Your task to perform on an android device: Search for beats solo 3 on walmart.com, select the first entry, and add it to the cart. Image 0: 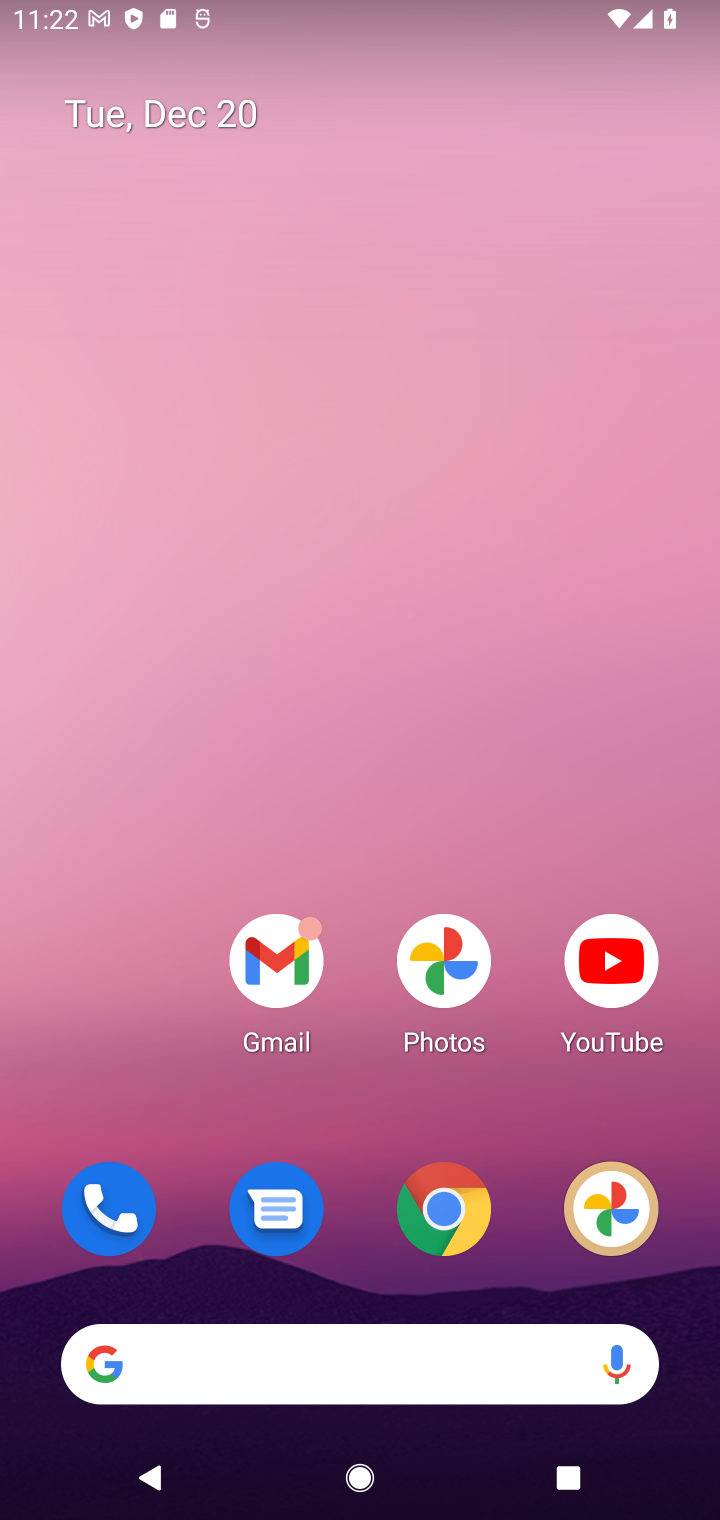
Step 0: click (451, 1210)
Your task to perform on an android device: Search for beats solo 3 on walmart.com, select the first entry, and add it to the cart. Image 1: 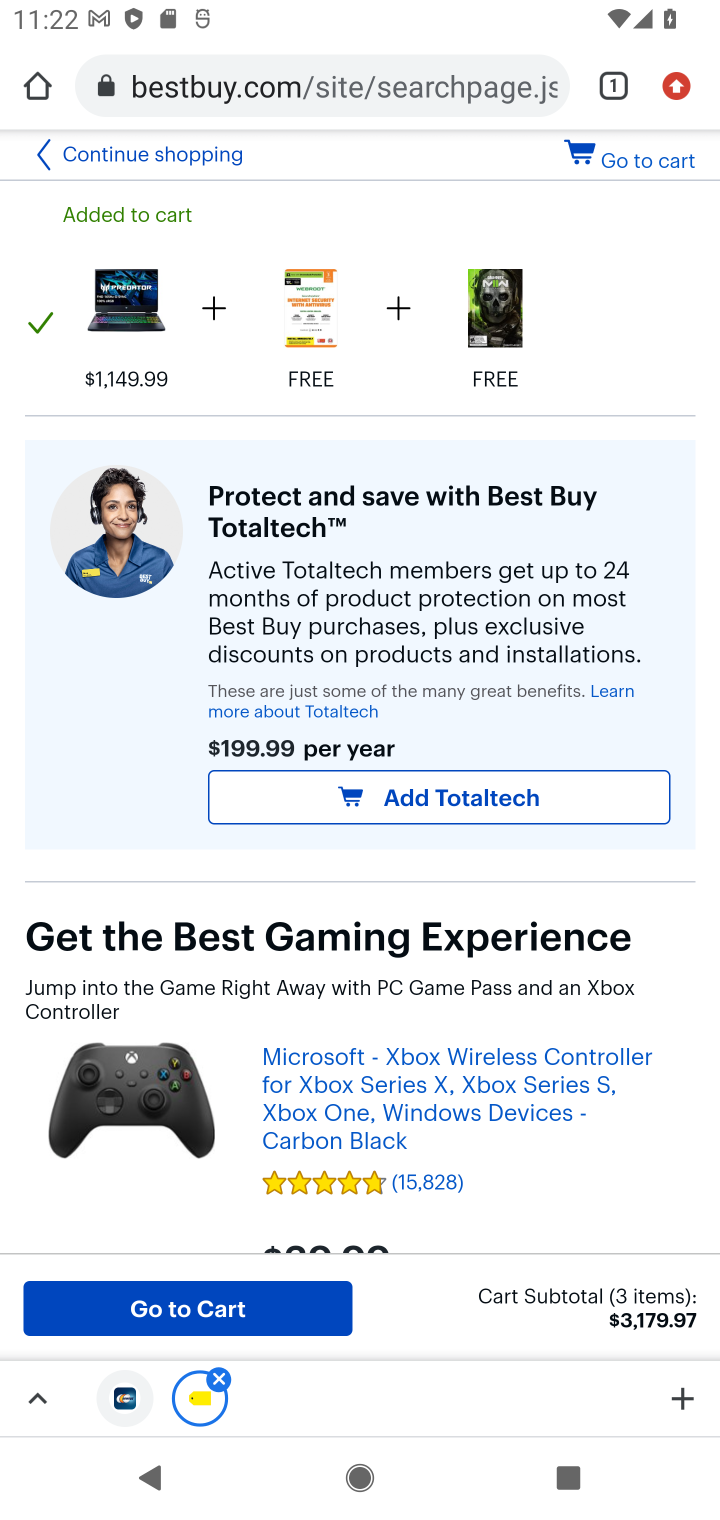
Step 1: click (235, 84)
Your task to perform on an android device: Search for beats solo 3 on walmart.com, select the first entry, and add it to the cart. Image 2: 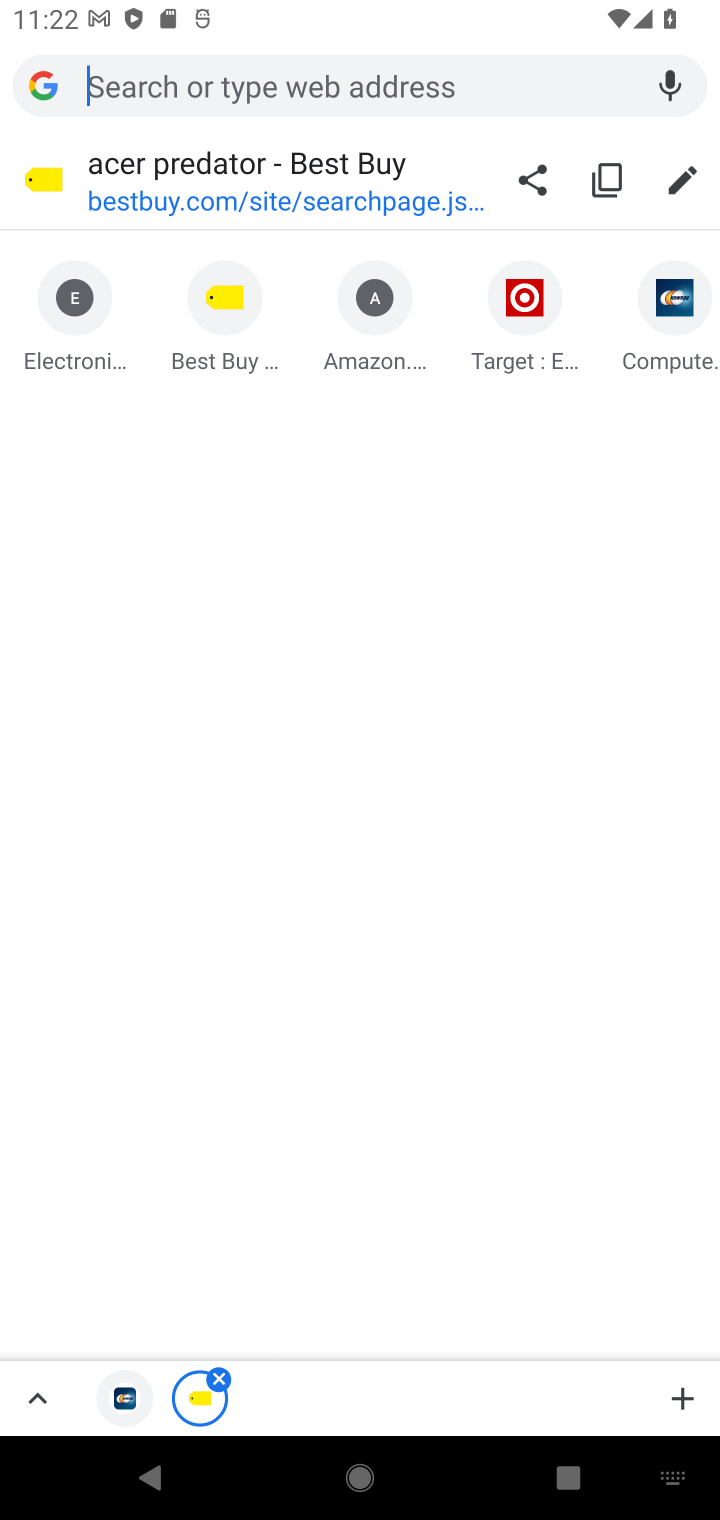
Step 2: type "walmart.com"
Your task to perform on an android device: Search for beats solo 3 on walmart.com, select the first entry, and add it to the cart. Image 3: 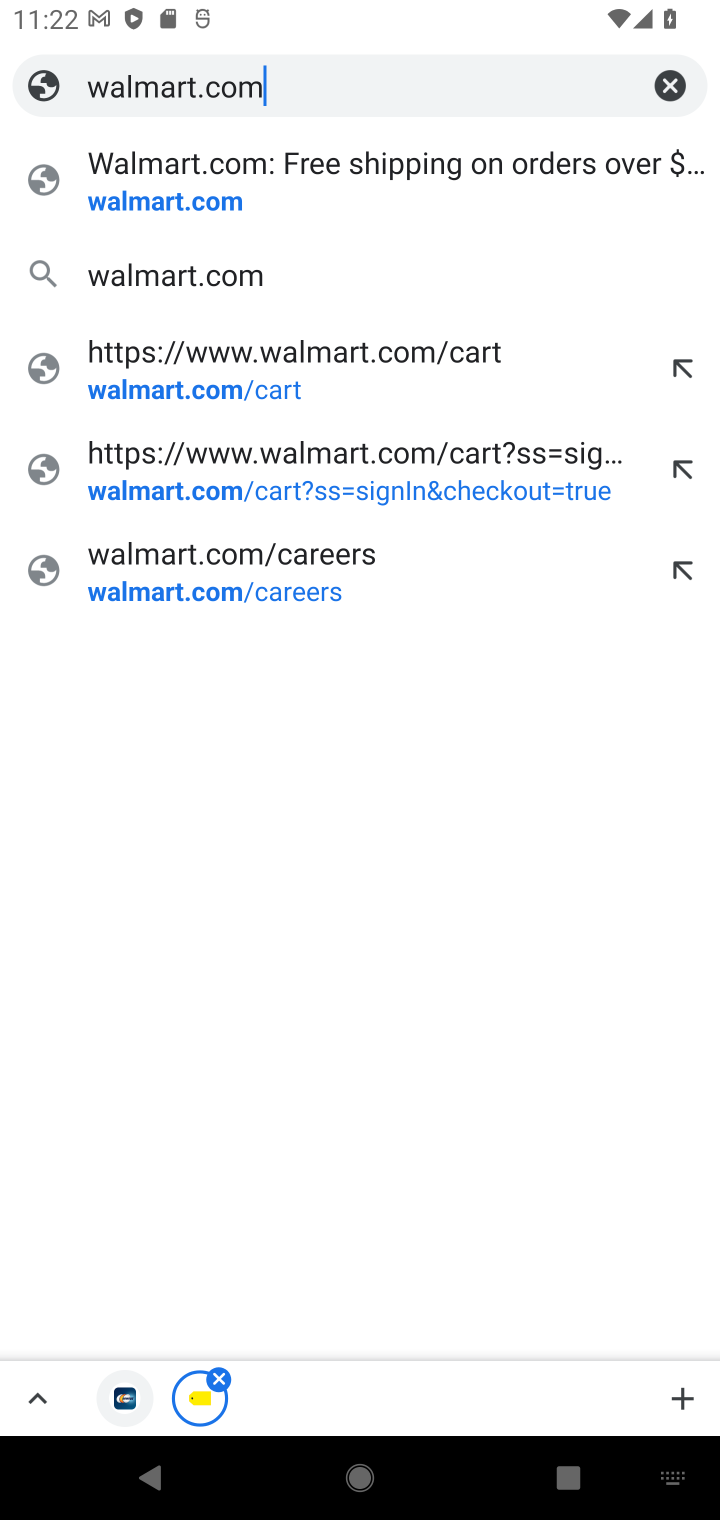
Step 3: click (165, 202)
Your task to perform on an android device: Search for beats solo 3 on walmart.com, select the first entry, and add it to the cart. Image 4: 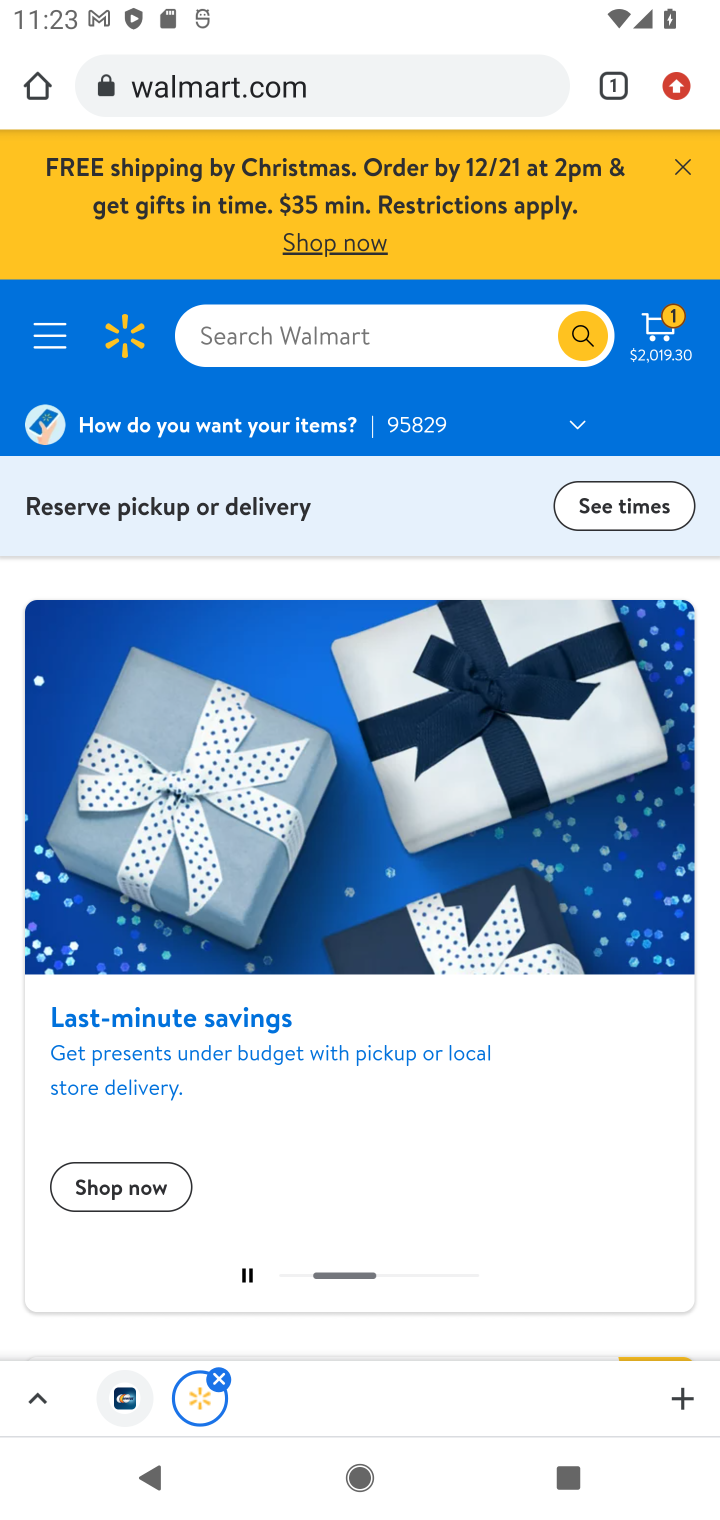
Step 4: click (246, 334)
Your task to perform on an android device: Search for beats solo 3 on walmart.com, select the first entry, and add it to the cart. Image 5: 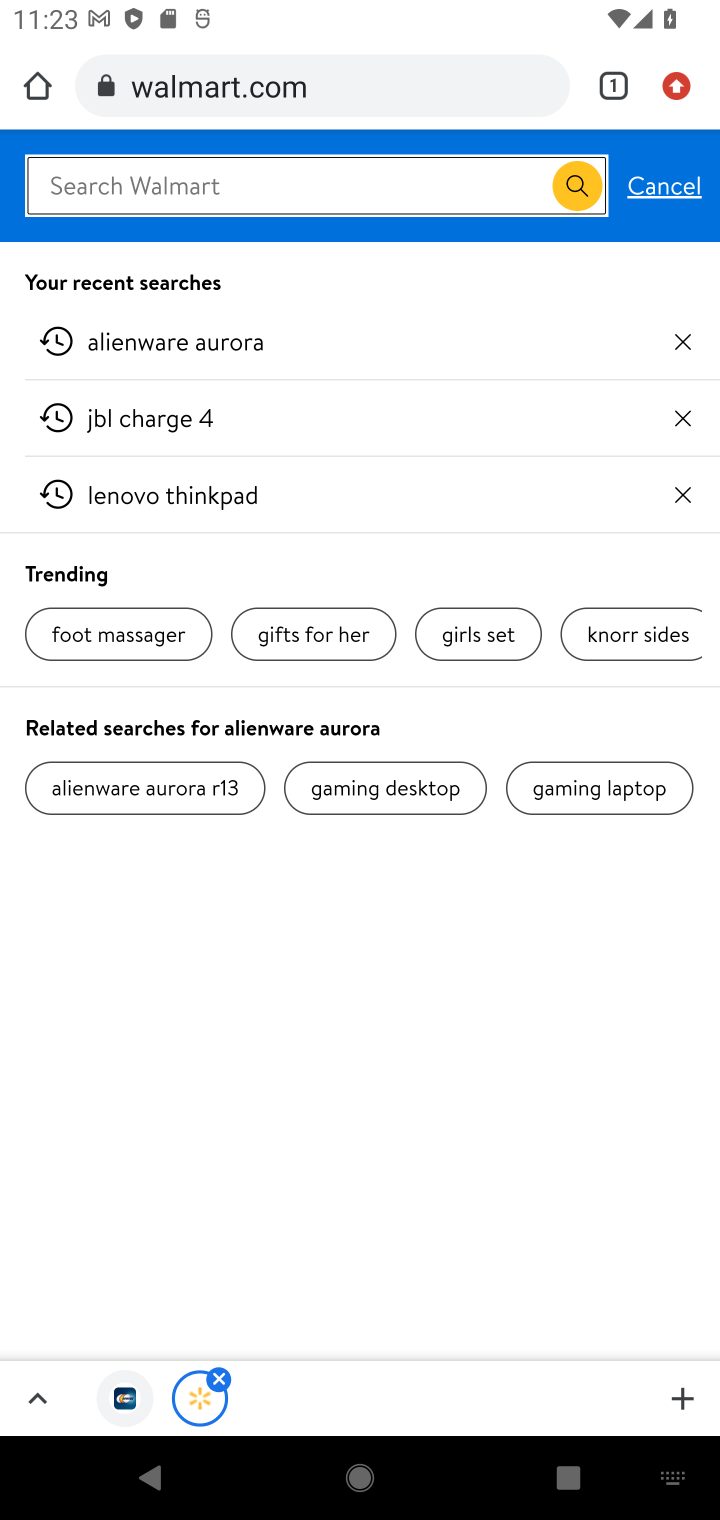
Step 5: type "beats solo 3 "
Your task to perform on an android device: Search for beats solo 3 on walmart.com, select the first entry, and add it to the cart. Image 6: 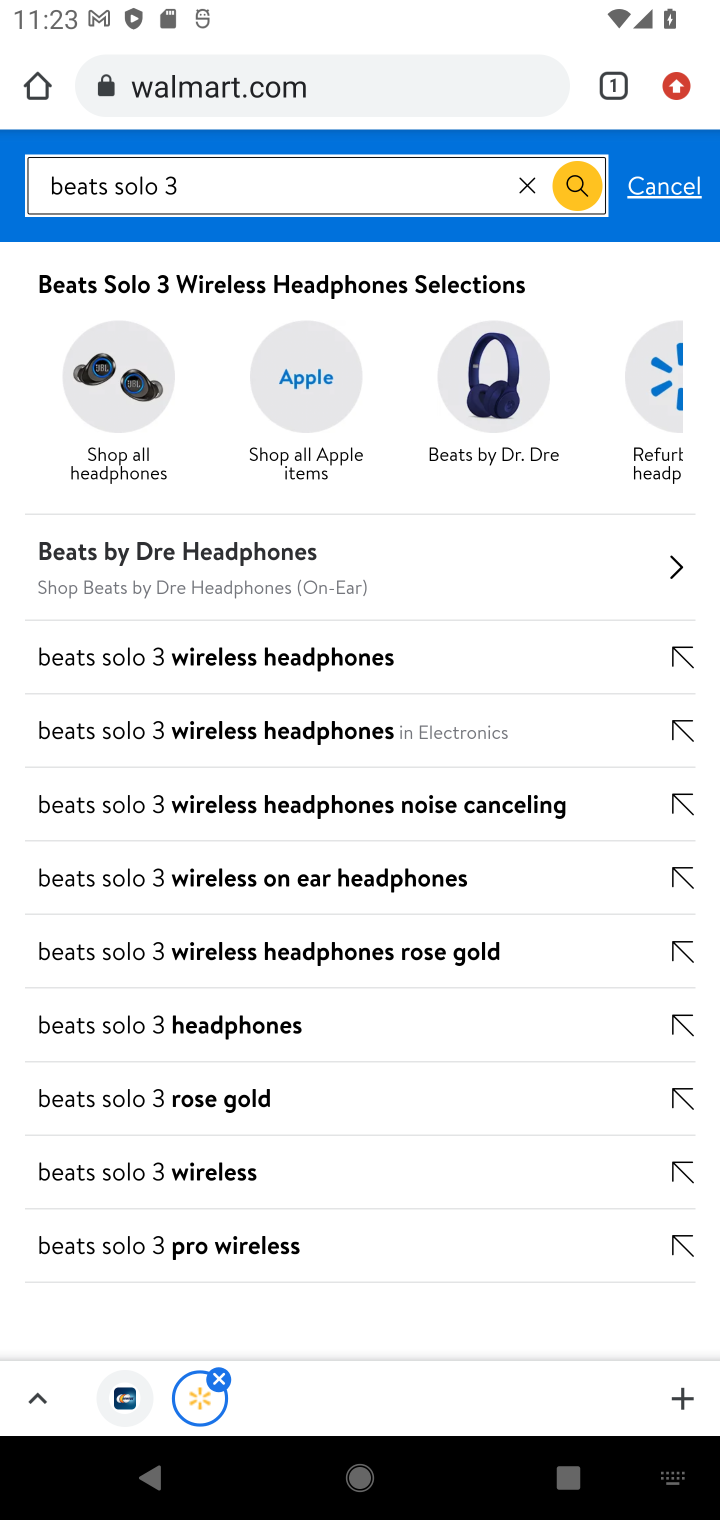
Step 6: click (583, 187)
Your task to perform on an android device: Search for beats solo 3 on walmart.com, select the first entry, and add it to the cart. Image 7: 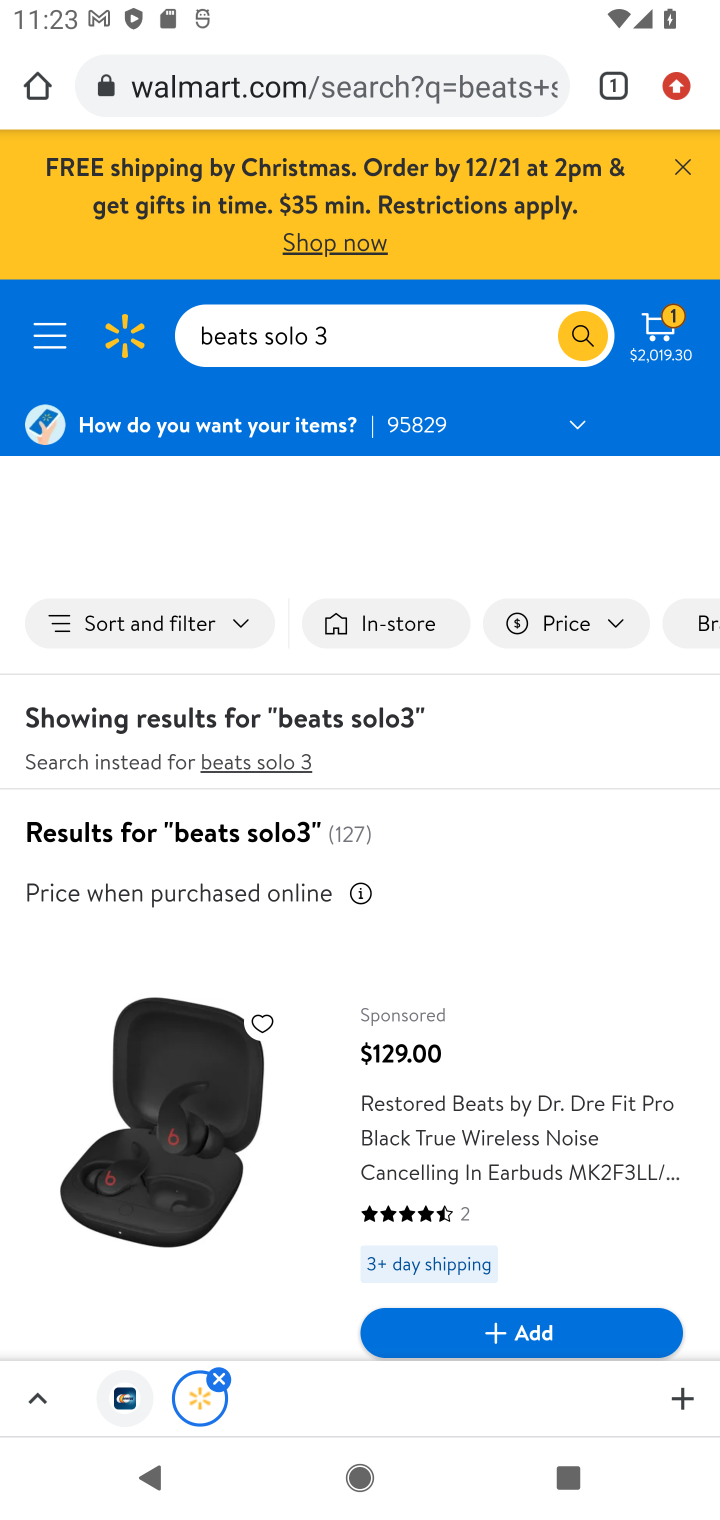
Step 7: task complete